Your task to perform on an android device: turn notification dots on Image 0: 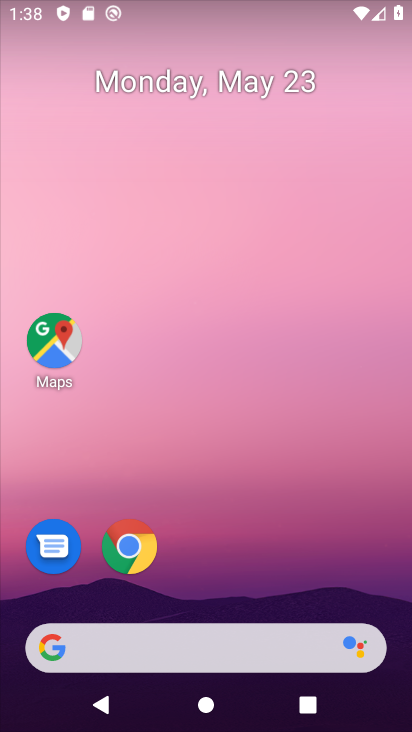
Step 0: drag from (229, 584) to (277, 61)
Your task to perform on an android device: turn notification dots on Image 1: 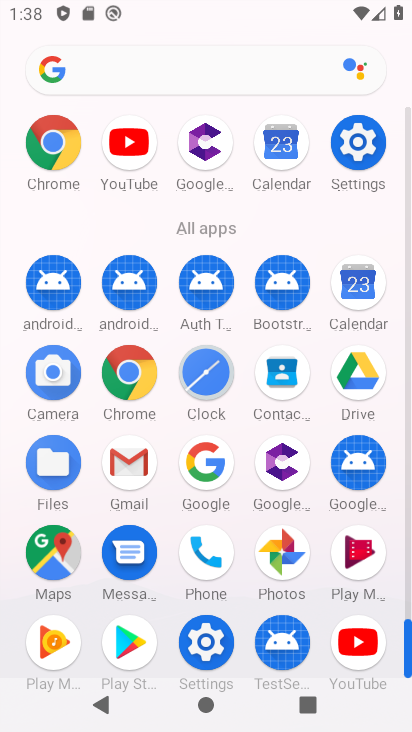
Step 1: click (371, 132)
Your task to perform on an android device: turn notification dots on Image 2: 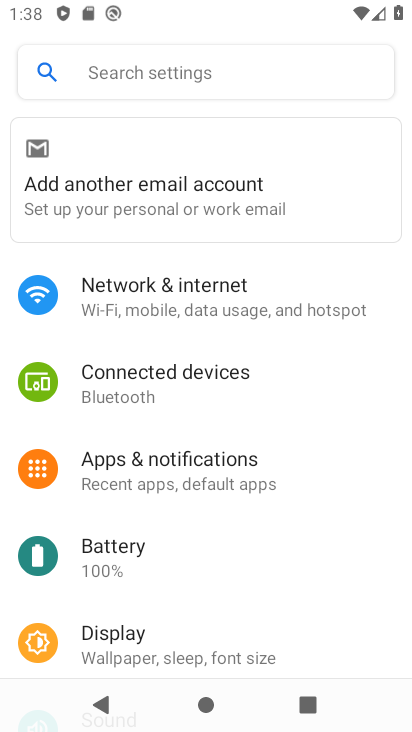
Step 2: click (180, 452)
Your task to perform on an android device: turn notification dots on Image 3: 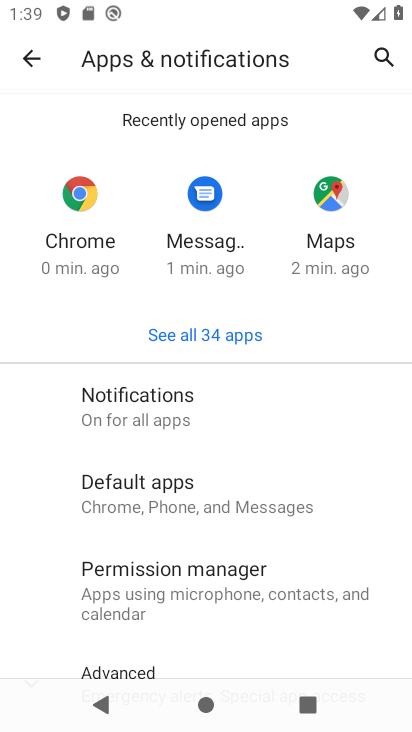
Step 3: click (140, 403)
Your task to perform on an android device: turn notification dots on Image 4: 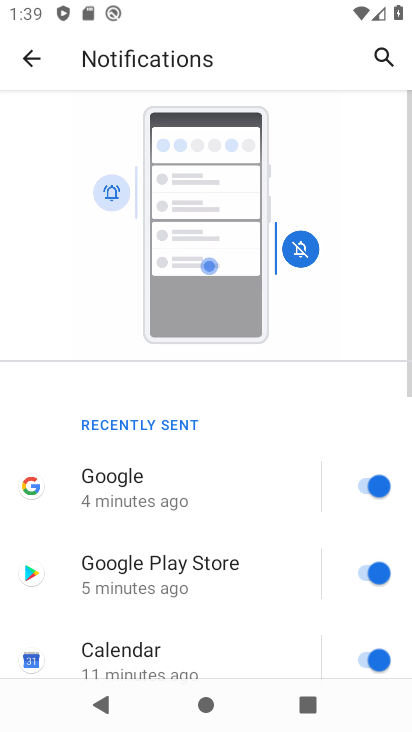
Step 4: drag from (171, 656) to (255, 158)
Your task to perform on an android device: turn notification dots on Image 5: 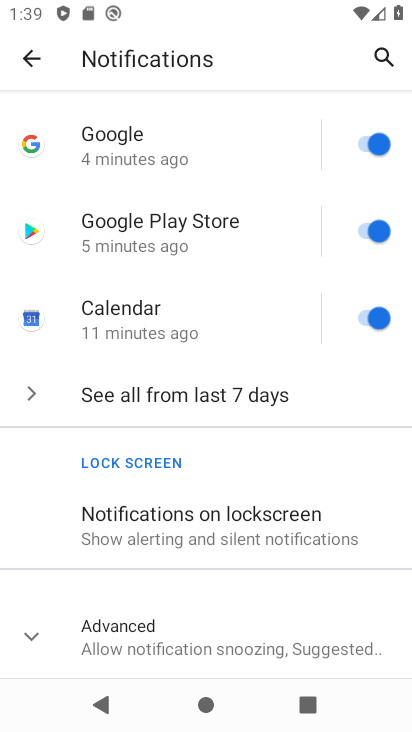
Step 5: click (175, 654)
Your task to perform on an android device: turn notification dots on Image 6: 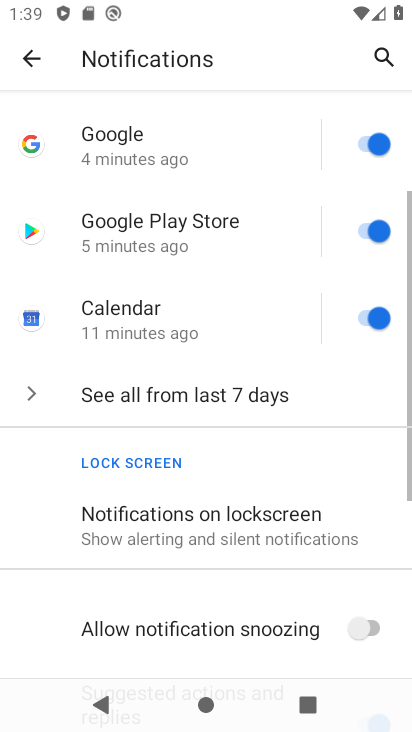
Step 6: drag from (195, 614) to (269, 112)
Your task to perform on an android device: turn notification dots on Image 7: 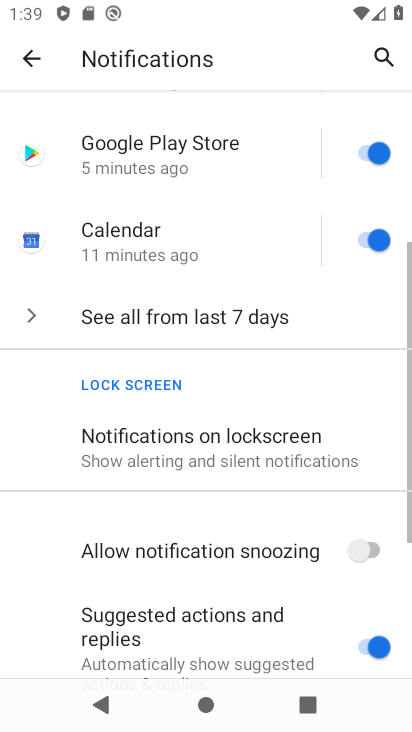
Step 7: drag from (237, 172) to (237, 124)
Your task to perform on an android device: turn notification dots on Image 8: 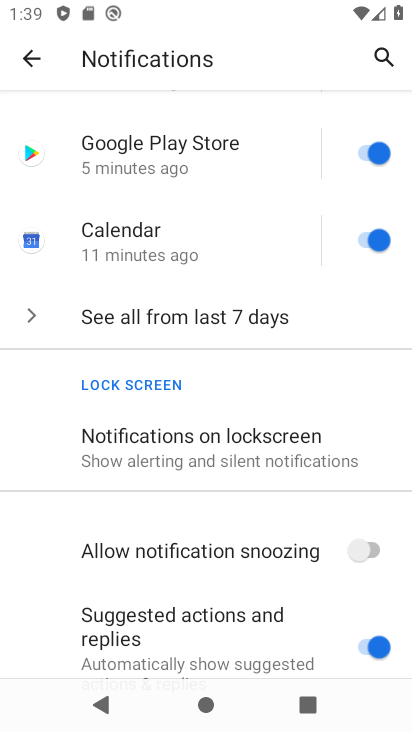
Step 8: drag from (161, 629) to (237, 202)
Your task to perform on an android device: turn notification dots on Image 9: 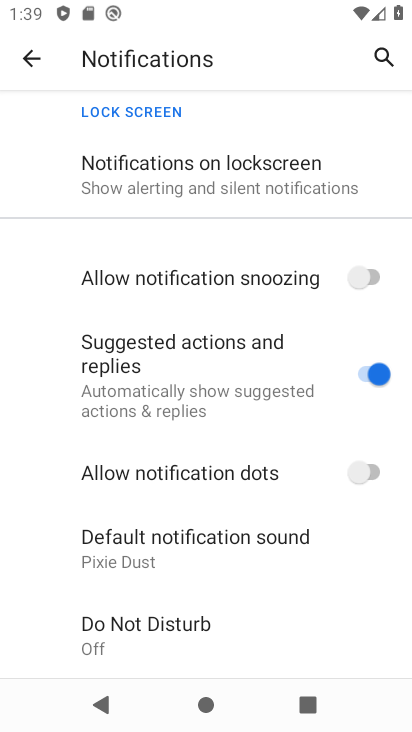
Step 9: click (370, 474)
Your task to perform on an android device: turn notification dots on Image 10: 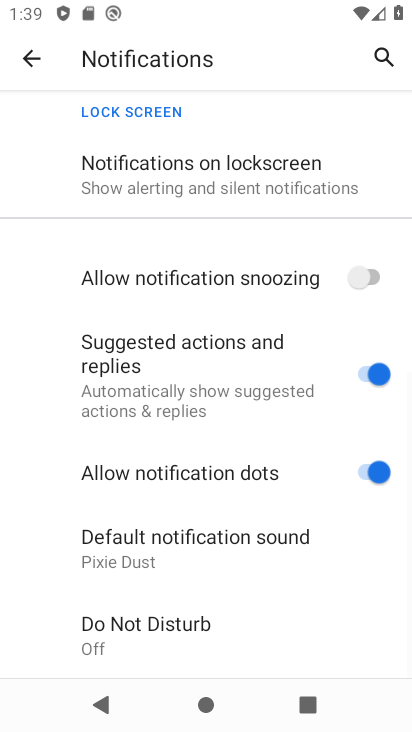
Step 10: task complete